Your task to perform on an android device: View the shopping cart on ebay.com. Add "amazon basics triple a" to the cart on ebay.com Image 0: 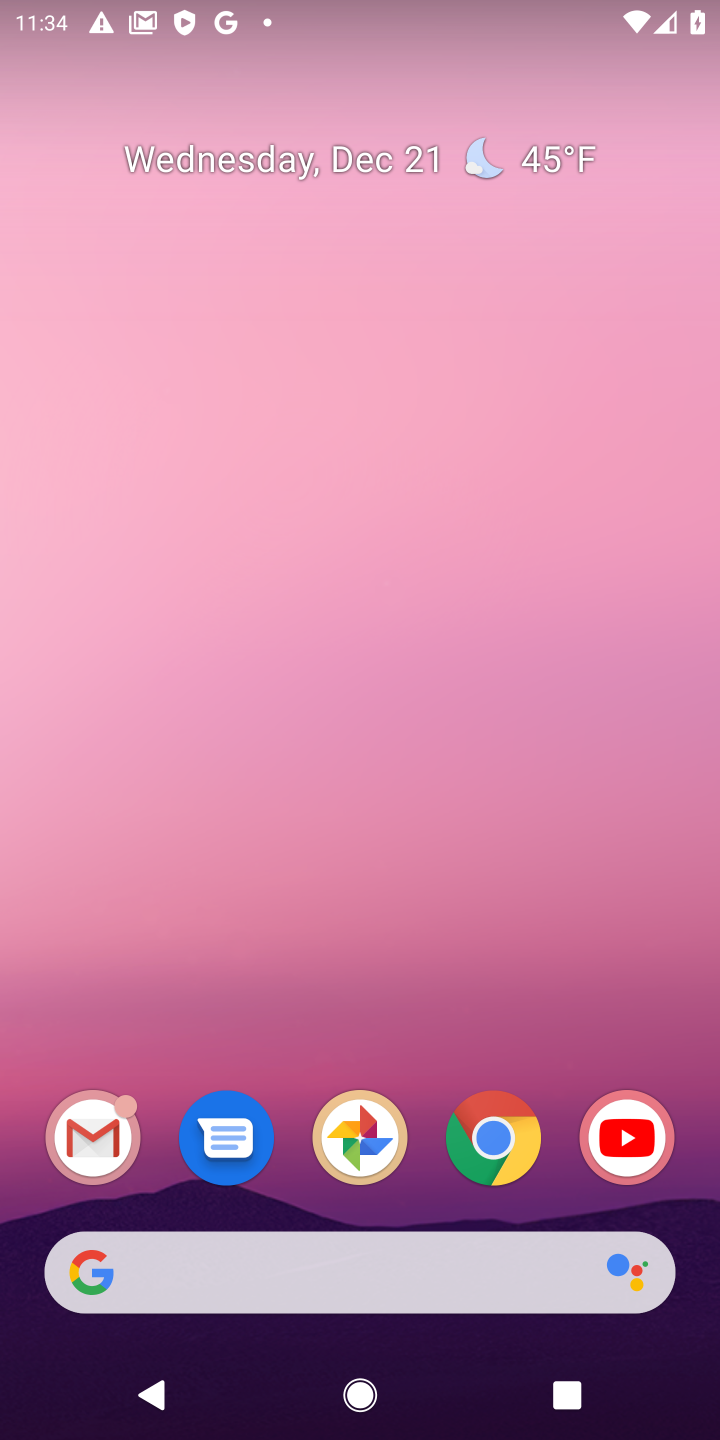
Step 0: click (499, 1154)
Your task to perform on an android device: View the shopping cart on ebay.com. Add "amazon basics triple a" to the cart on ebay.com Image 1: 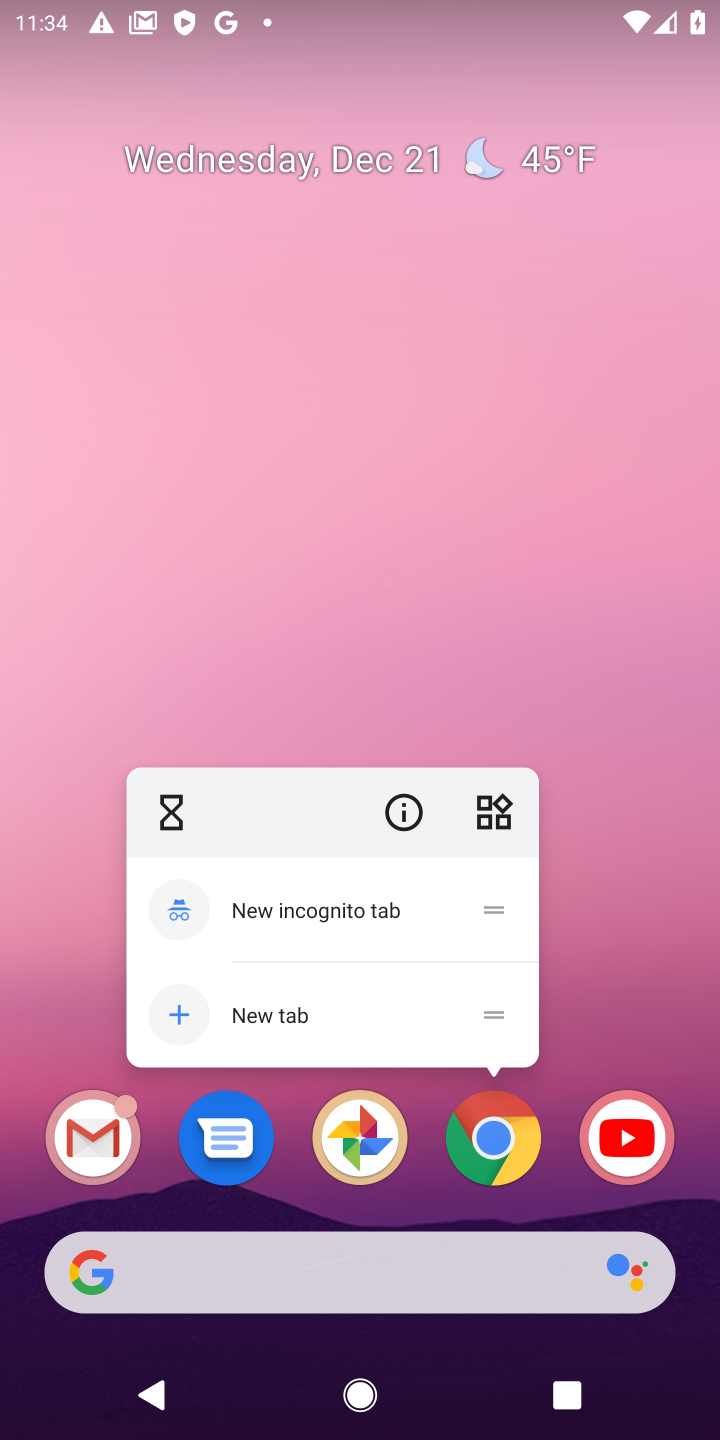
Step 1: click (499, 1154)
Your task to perform on an android device: View the shopping cart on ebay.com. Add "amazon basics triple a" to the cart on ebay.com Image 2: 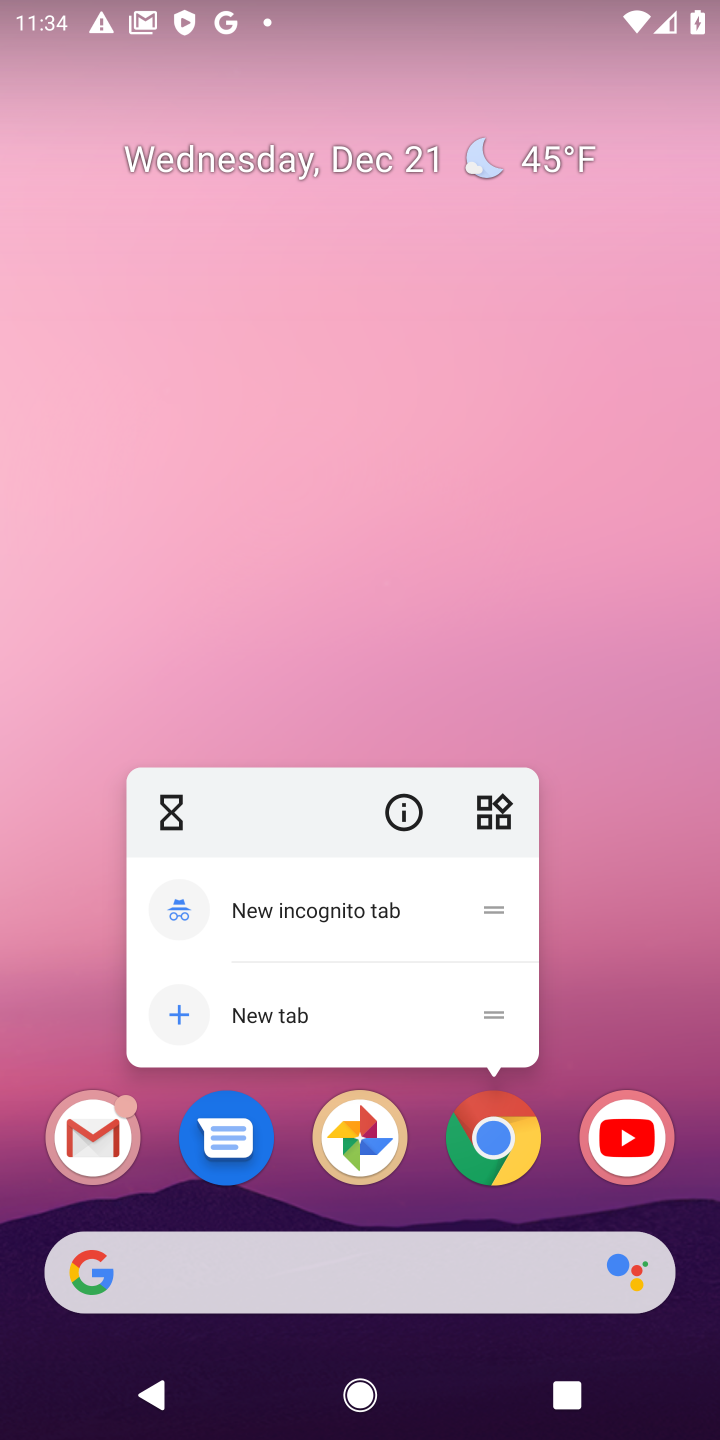
Step 2: click (499, 1154)
Your task to perform on an android device: View the shopping cart on ebay.com. Add "amazon basics triple a" to the cart on ebay.com Image 3: 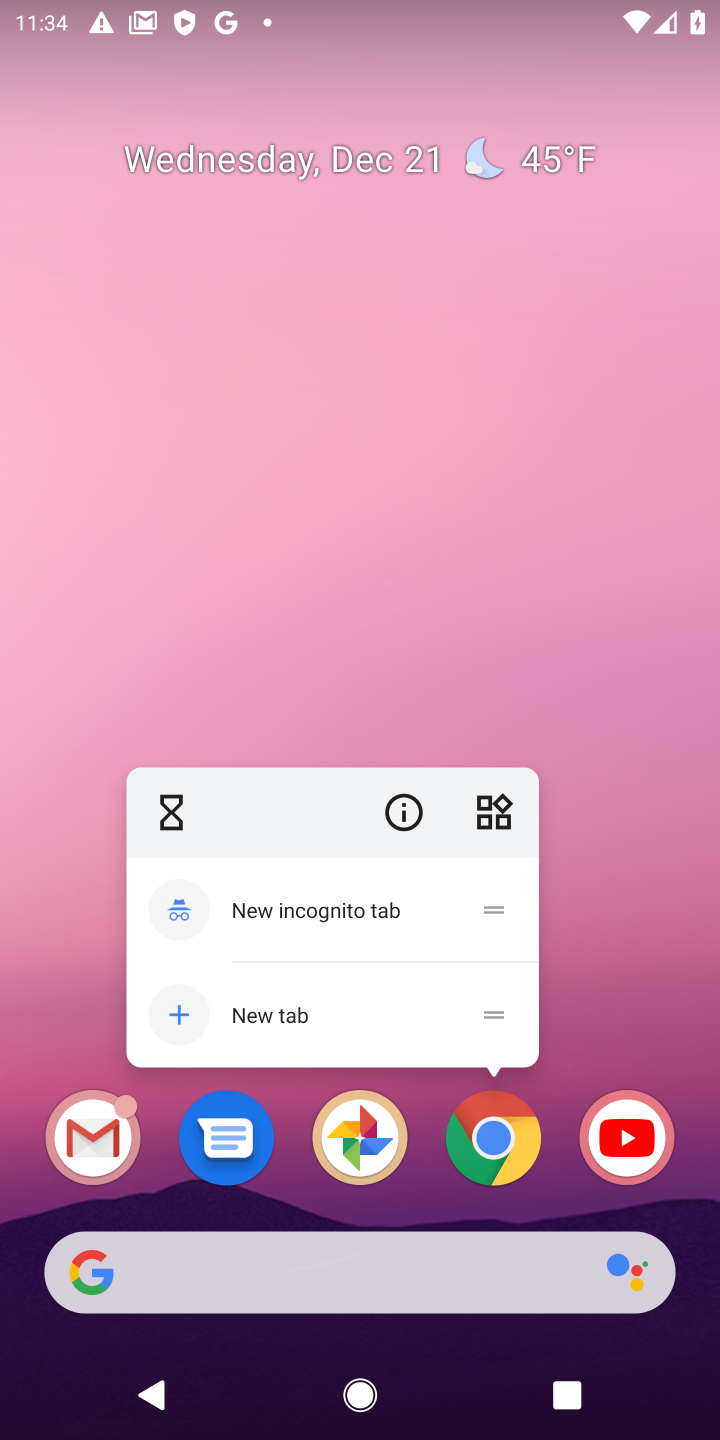
Step 3: click (587, 841)
Your task to perform on an android device: View the shopping cart on ebay.com. Add "amazon basics triple a" to the cart on ebay.com Image 4: 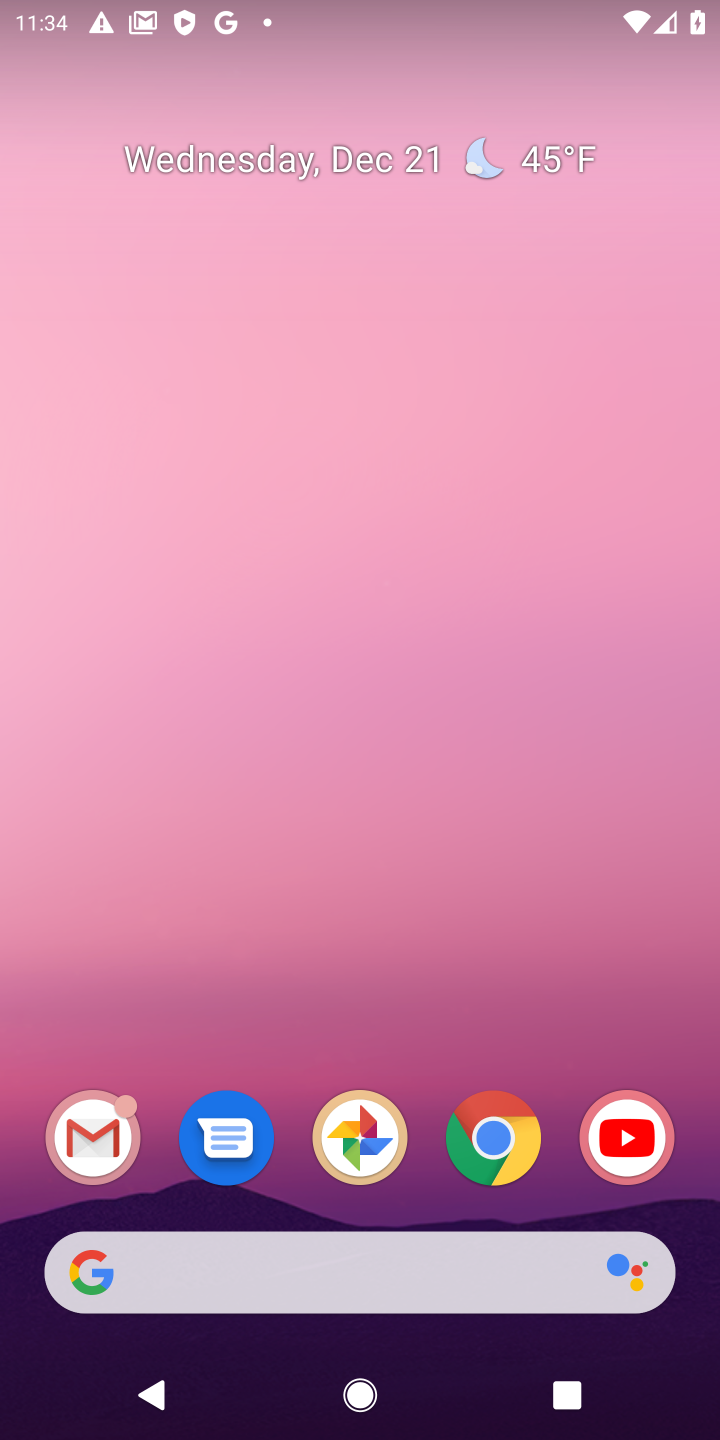
Step 4: click (498, 1156)
Your task to perform on an android device: View the shopping cart on ebay.com. Add "amazon basics triple a" to the cart on ebay.com Image 5: 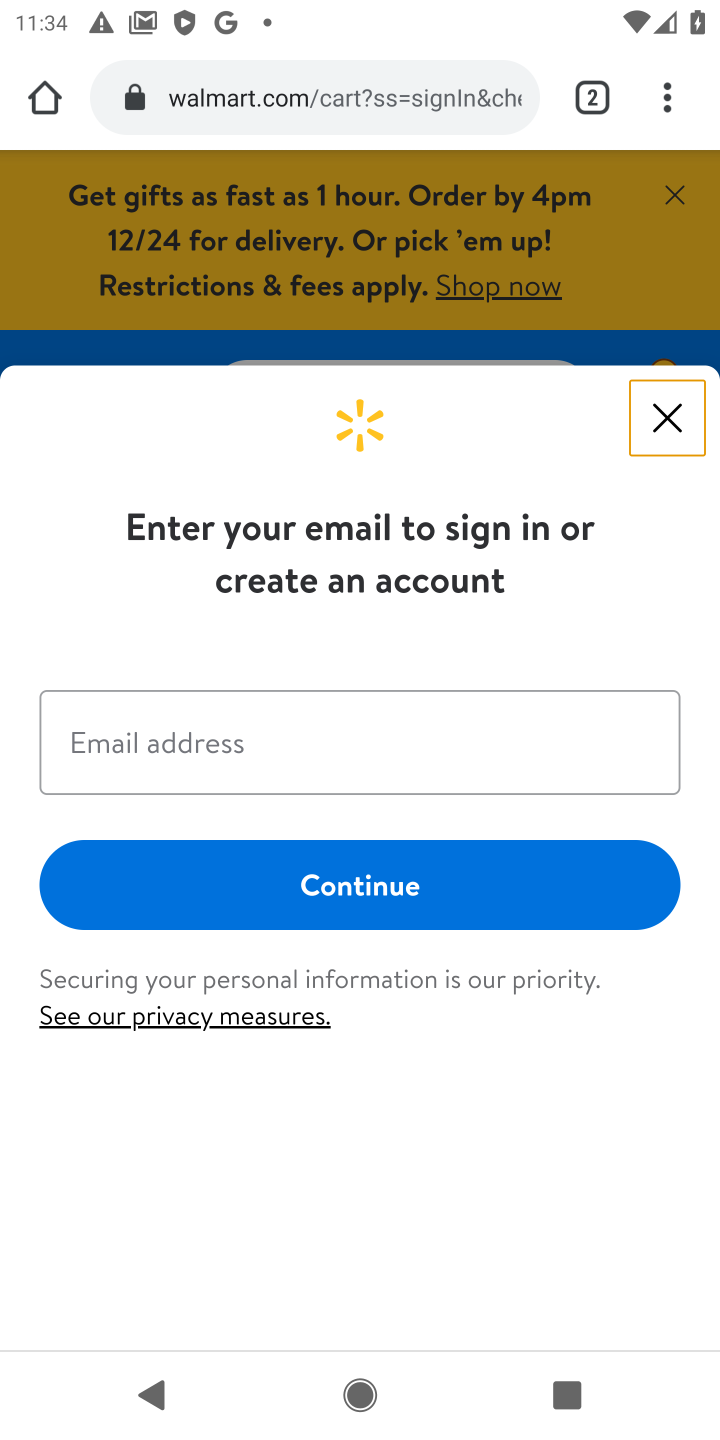
Step 5: click (226, 105)
Your task to perform on an android device: View the shopping cart on ebay.com. Add "amazon basics triple a" to the cart on ebay.com Image 6: 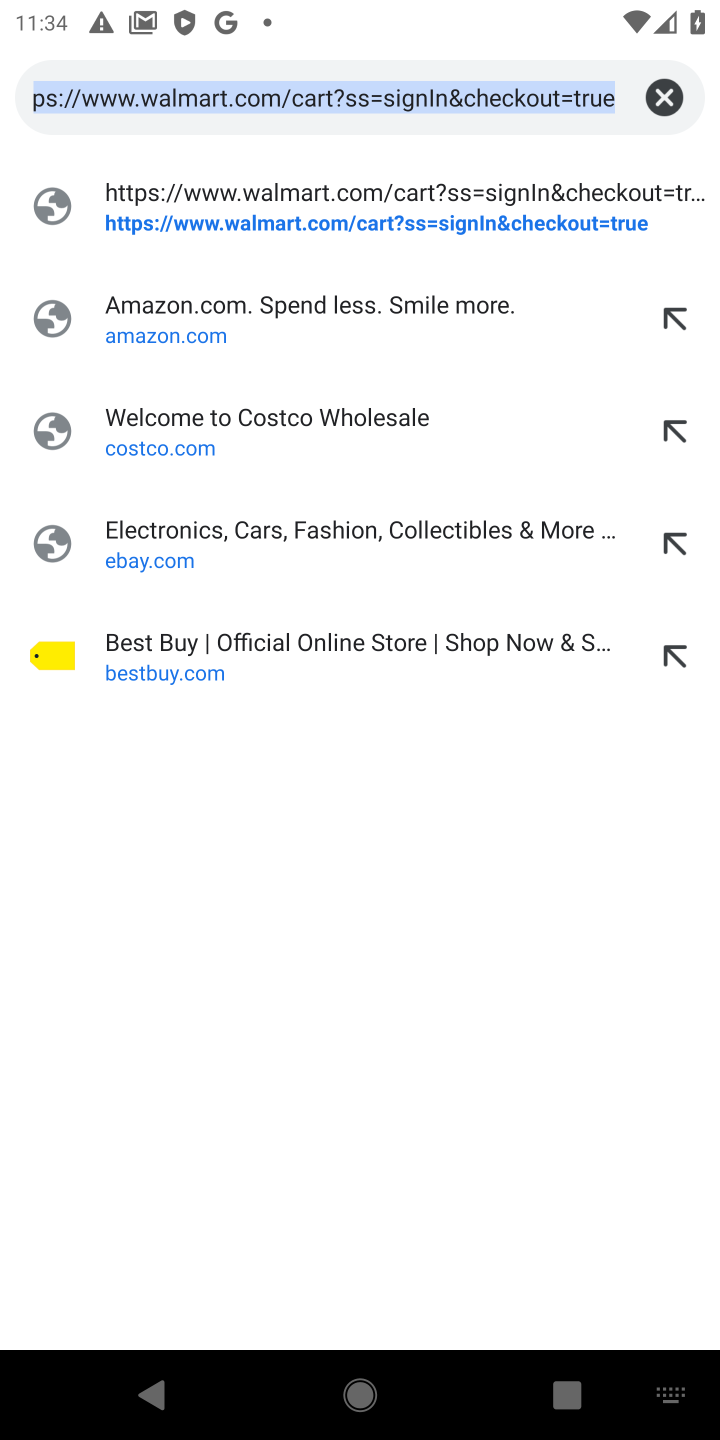
Step 6: click (121, 524)
Your task to perform on an android device: View the shopping cart on ebay.com. Add "amazon basics triple a" to the cart on ebay.com Image 7: 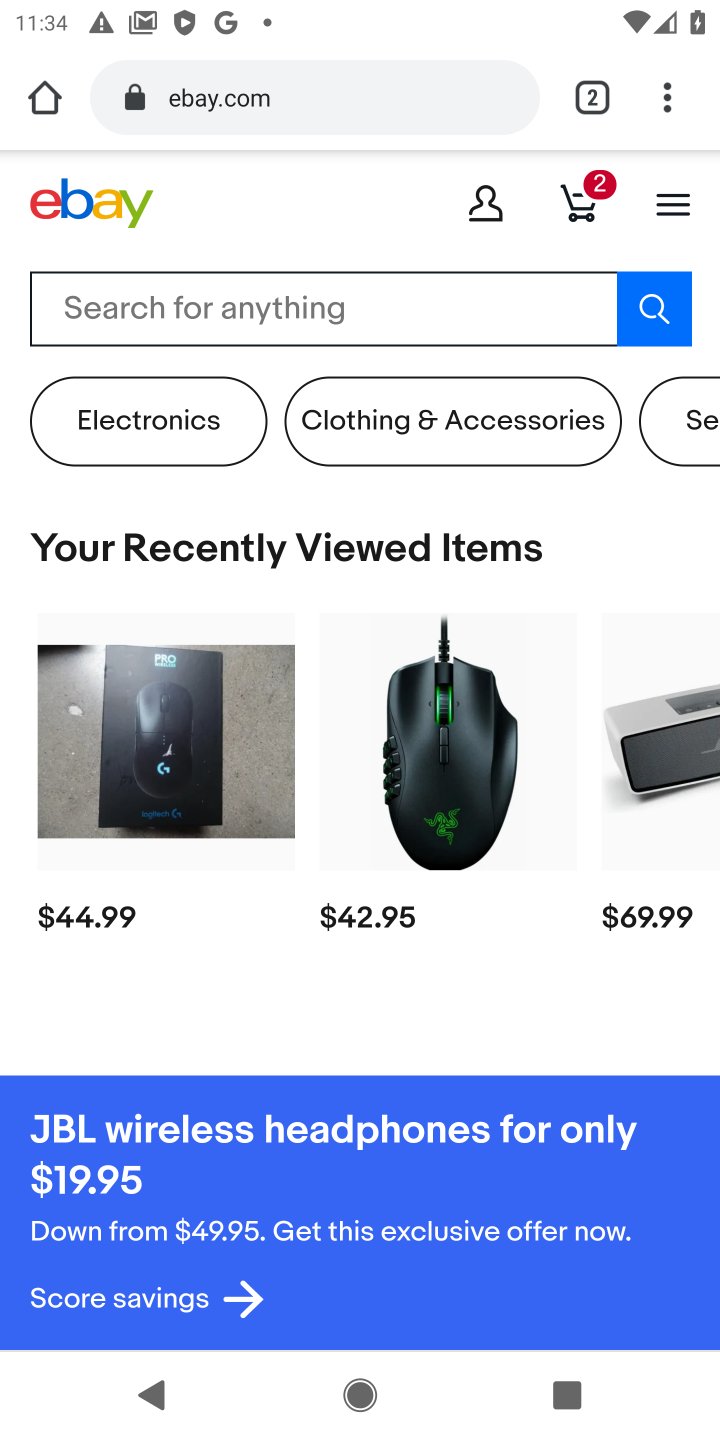
Step 7: click (576, 203)
Your task to perform on an android device: View the shopping cart on ebay.com. Add "amazon basics triple a" to the cart on ebay.com Image 8: 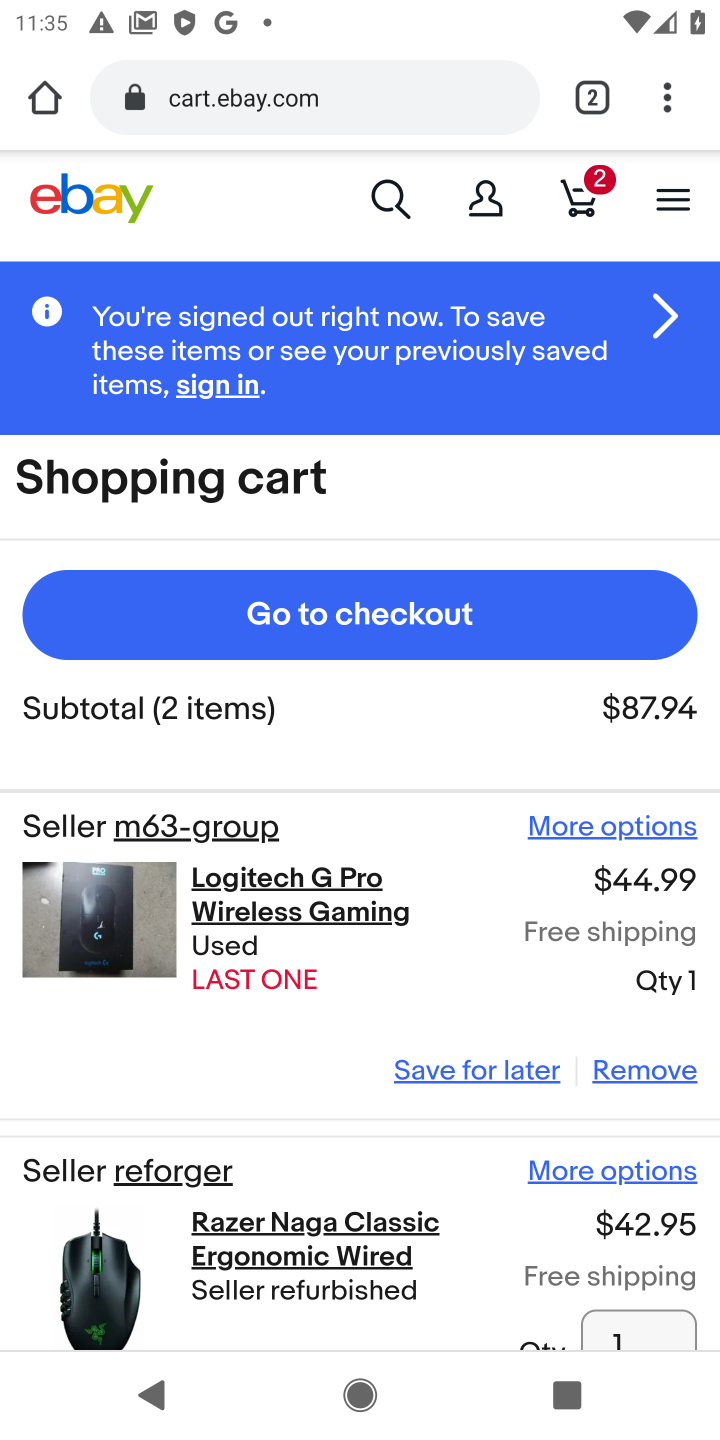
Step 8: click (389, 208)
Your task to perform on an android device: View the shopping cart on ebay.com. Add "amazon basics triple a" to the cart on ebay.com Image 9: 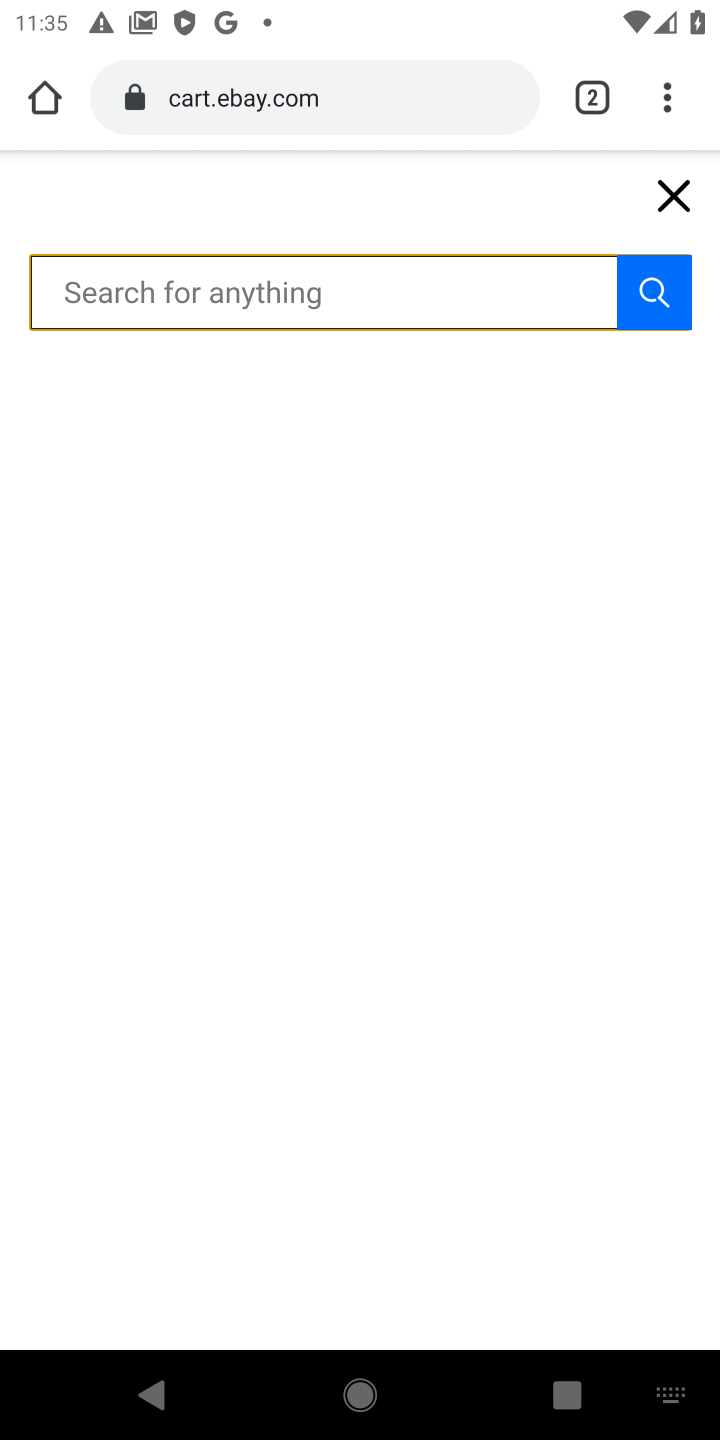
Step 9: type "amazon basics triple a"
Your task to perform on an android device: View the shopping cart on ebay.com. Add "amazon basics triple a" to the cart on ebay.com Image 10: 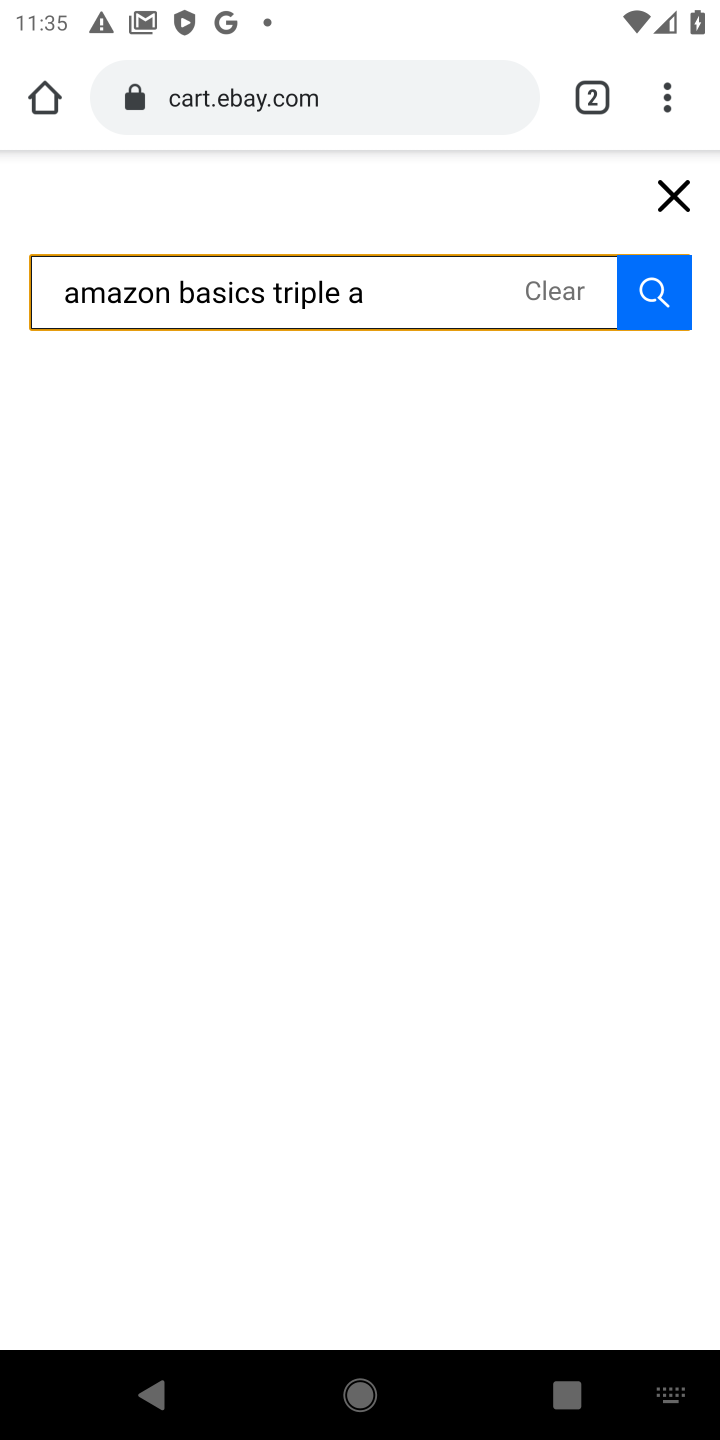
Step 10: click (655, 301)
Your task to perform on an android device: View the shopping cart on ebay.com. Add "amazon basics triple a" to the cart on ebay.com Image 11: 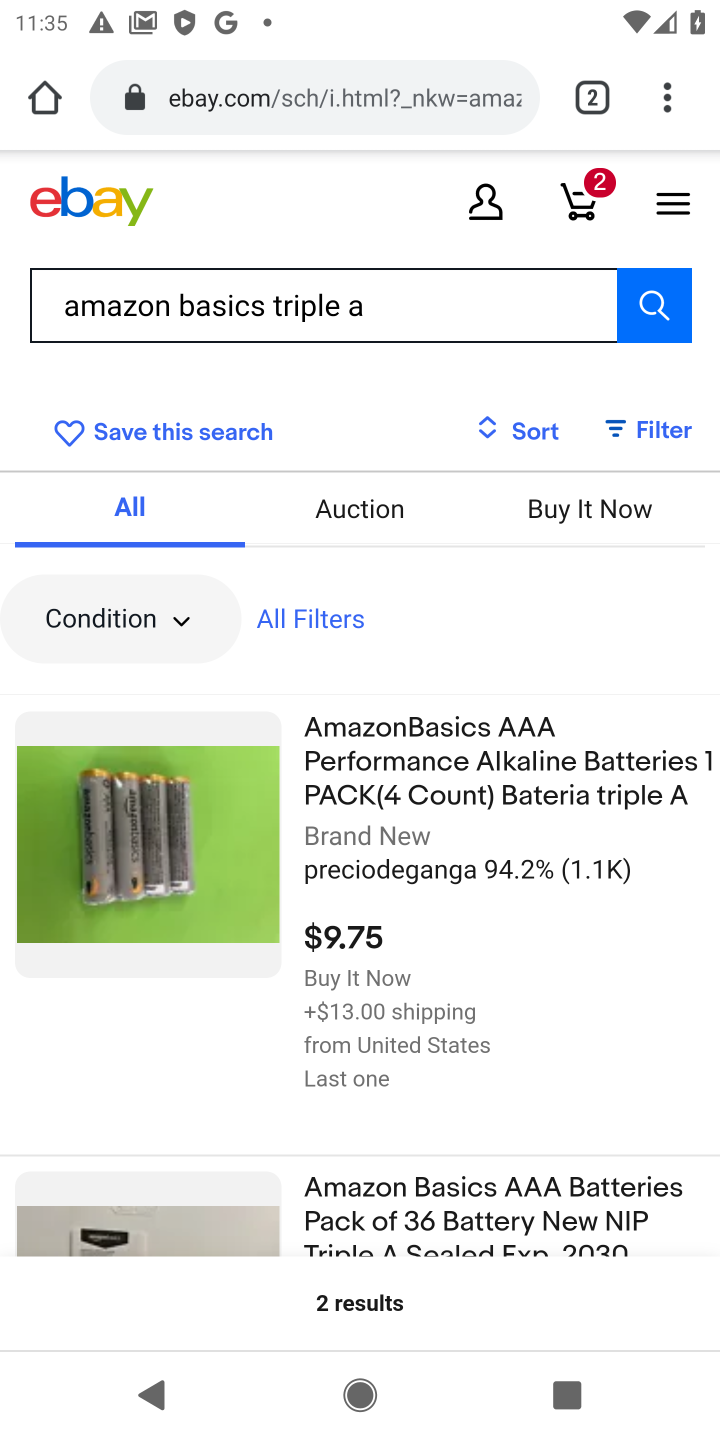
Step 11: click (378, 797)
Your task to perform on an android device: View the shopping cart on ebay.com. Add "amazon basics triple a" to the cart on ebay.com Image 12: 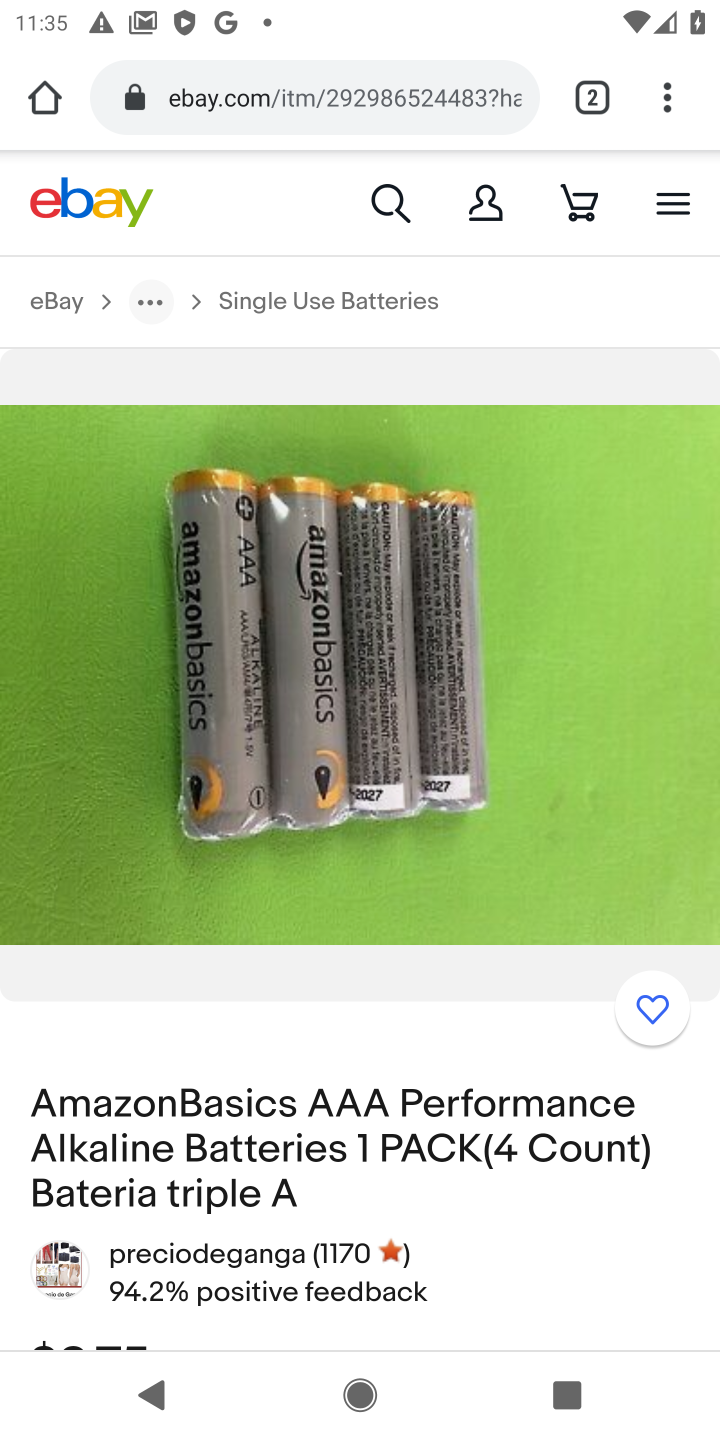
Step 12: drag from (308, 904) to (328, 385)
Your task to perform on an android device: View the shopping cart on ebay.com. Add "amazon basics triple a" to the cart on ebay.com Image 13: 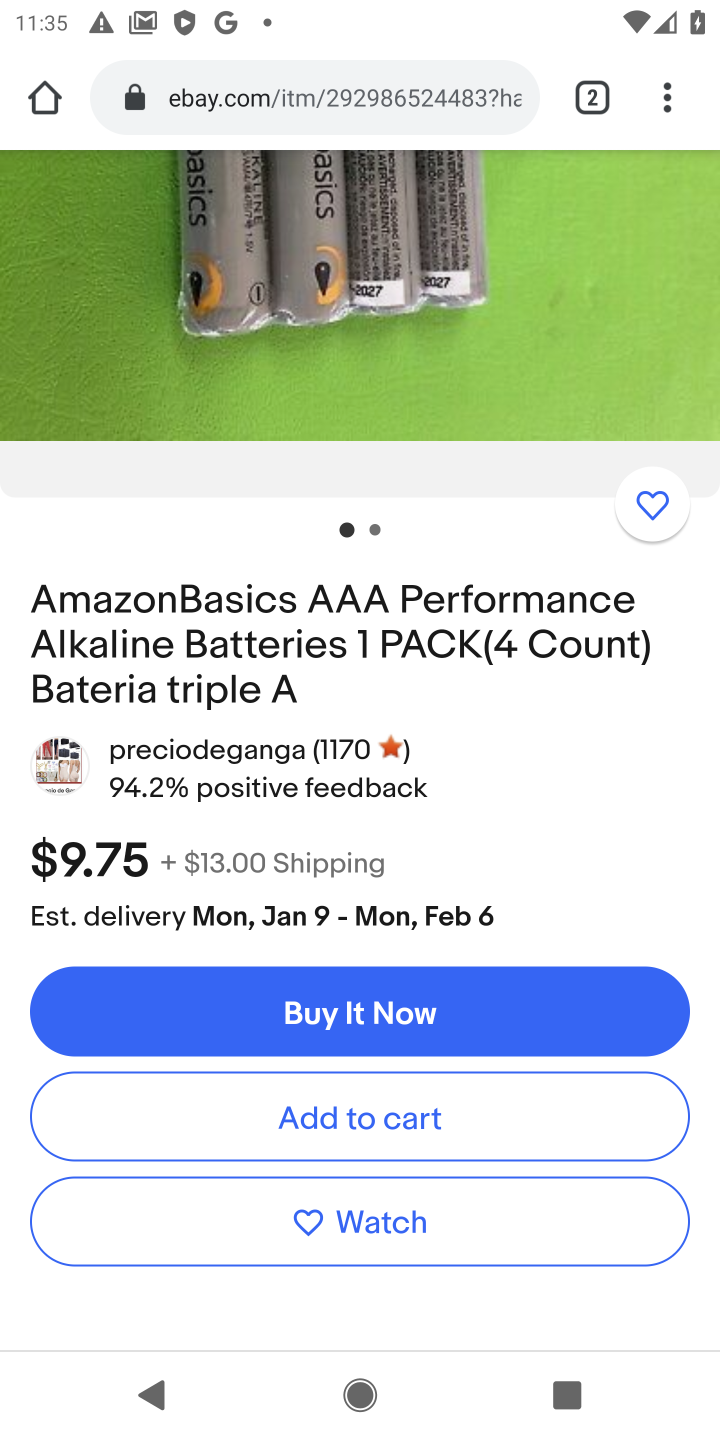
Step 13: click (317, 1114)
Your task to perform on an android device: View the shopping cart on ebay.com. Add "amazon basics triple a" to the cart on ebay.com Image 14: 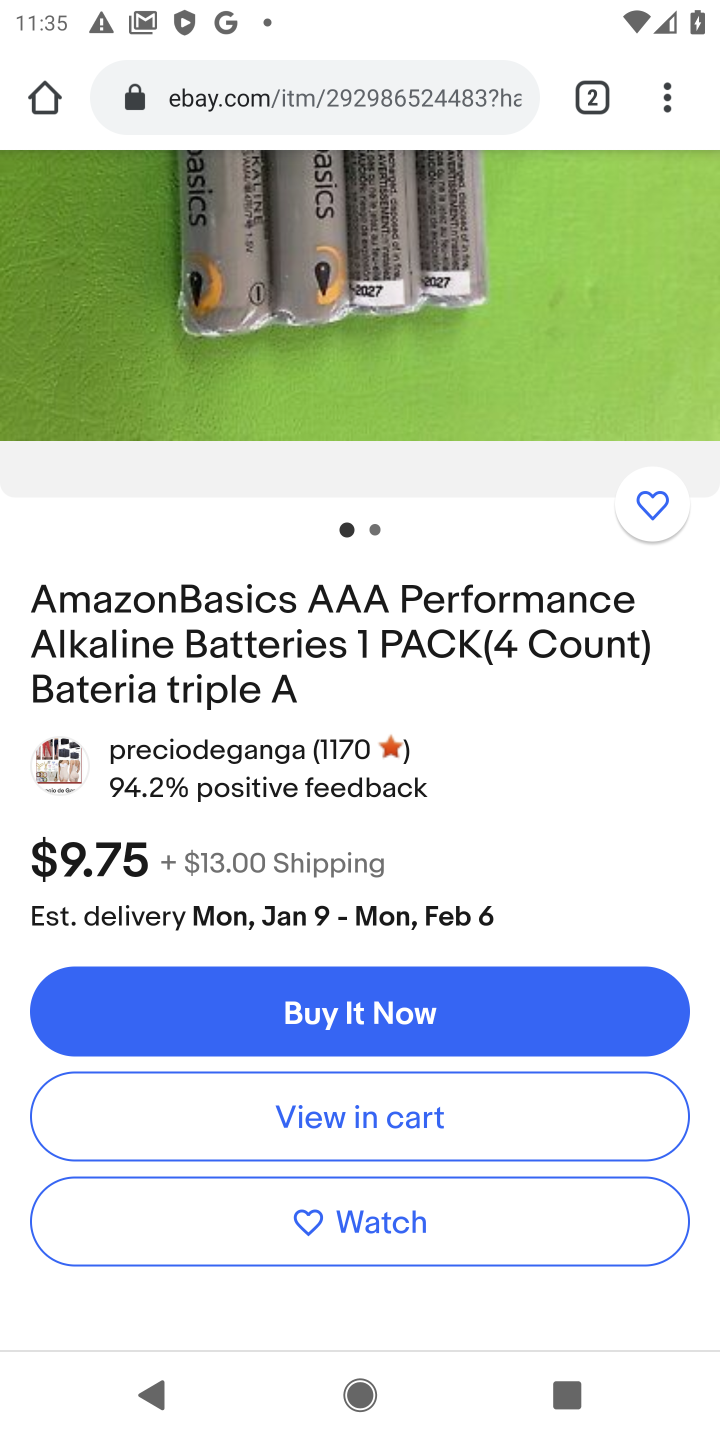
Step 14: task complete